Your task to perform on an android device: Clear the cart on newegg.com. Search for "razer huntsman" on newegg.com, select the first entry, and add it to the cart. Image 0: 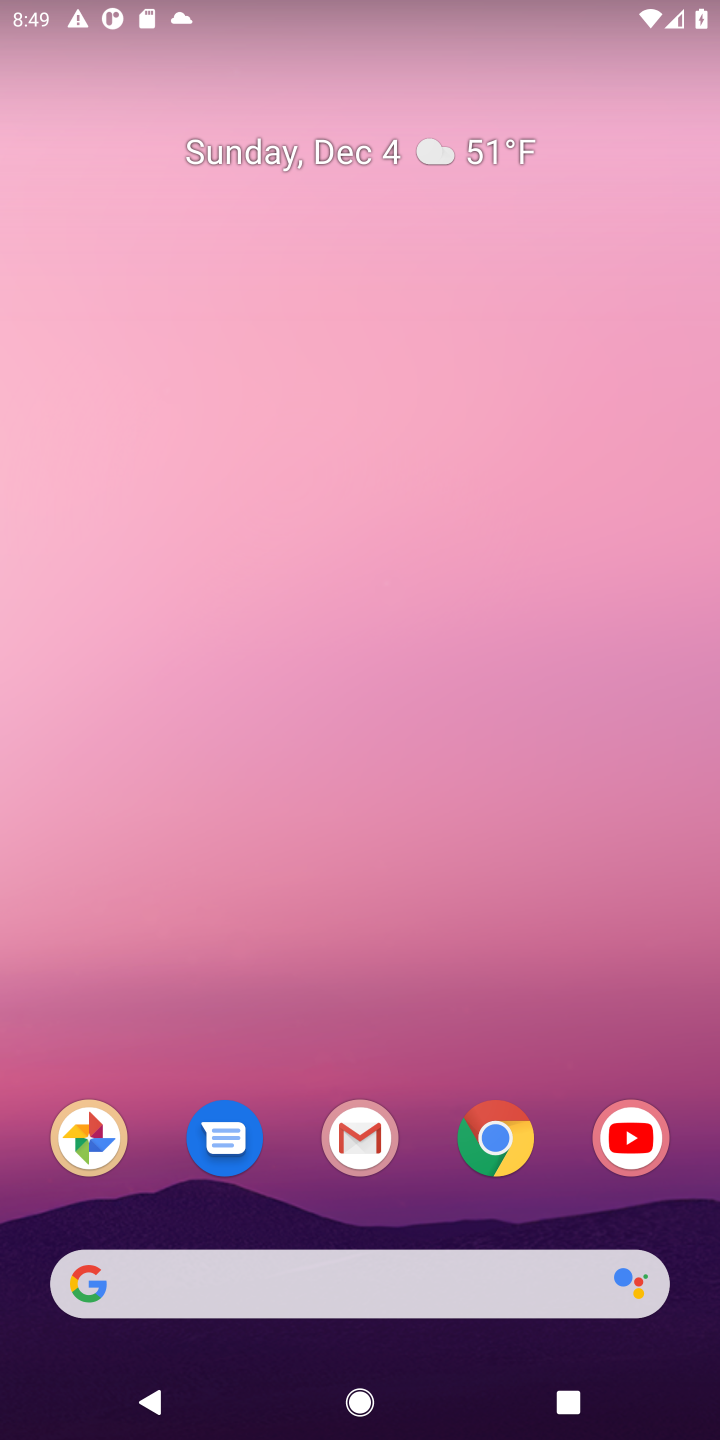
Step 0: click (486, 1121)
Your task to perform on an android device: Clear the cart on newegg.com. Search for "razer huntsman" on newegg.com, select the first entry, and add it to the cart. Image 1: 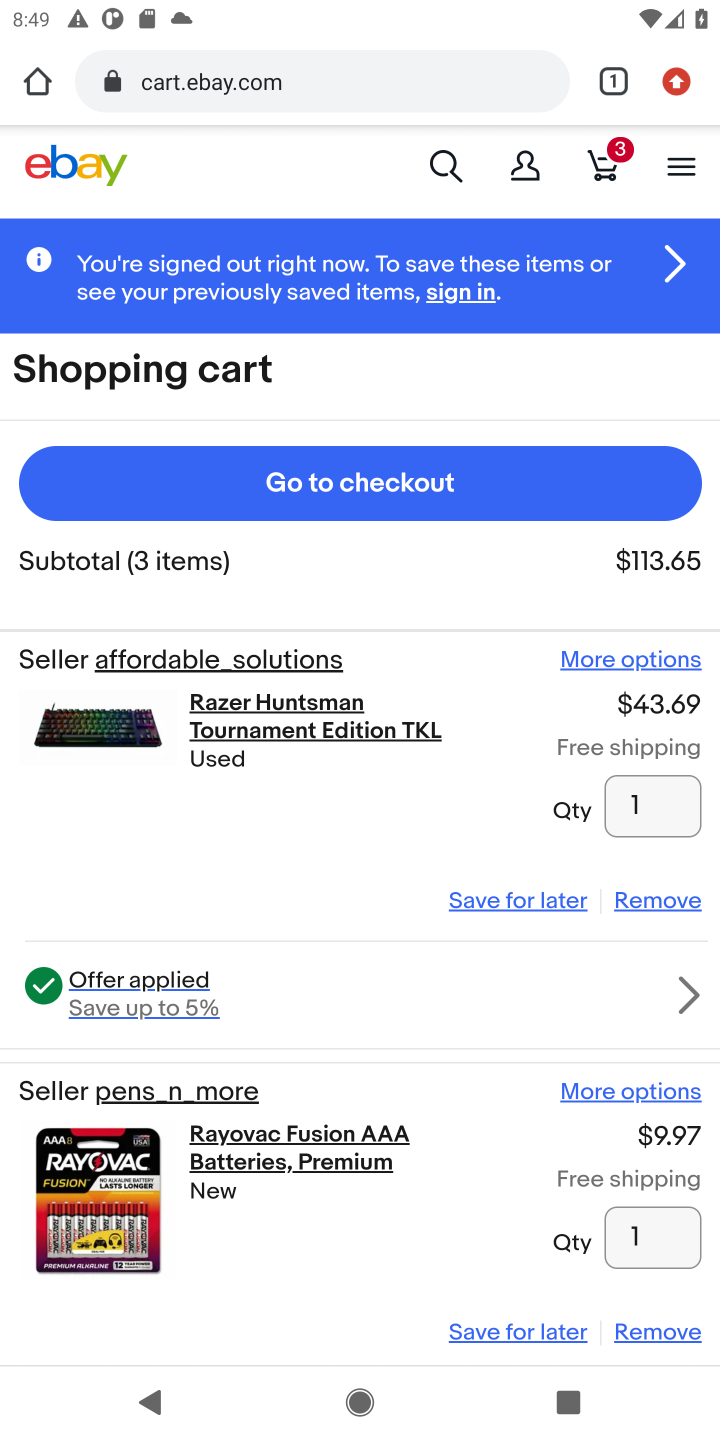
Step 1: click (373, 81)
Your task to perform on an android device: Clear the cart on newegg.com. Search for "razer huntsman" on newegg.com, select the first entry, and add it to the cart. Image 2: 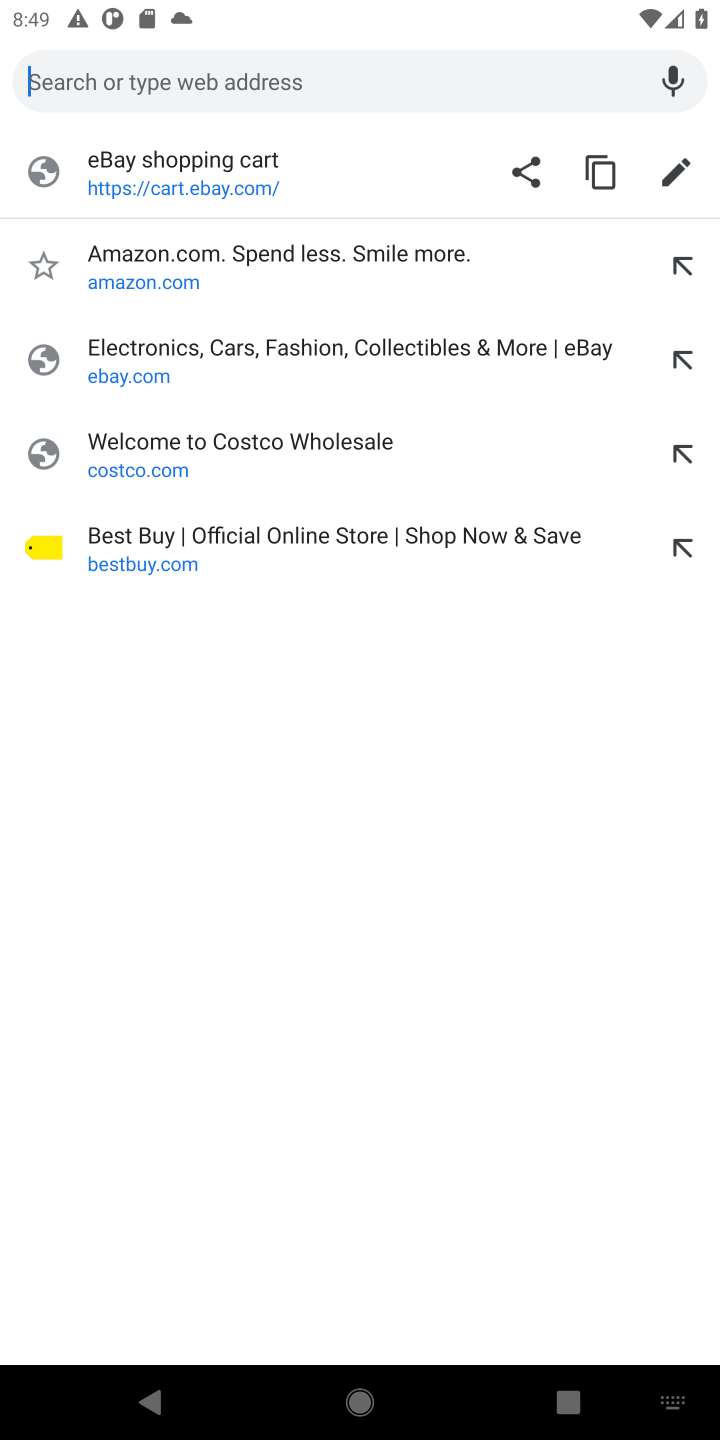
Step 2: type "newegg.com"
Your task to perform on an android device: Clear the cart on newegg.com. Search for "razer huntsman" on newegg.com, select the first entry, and add it to the cart. Image 3: 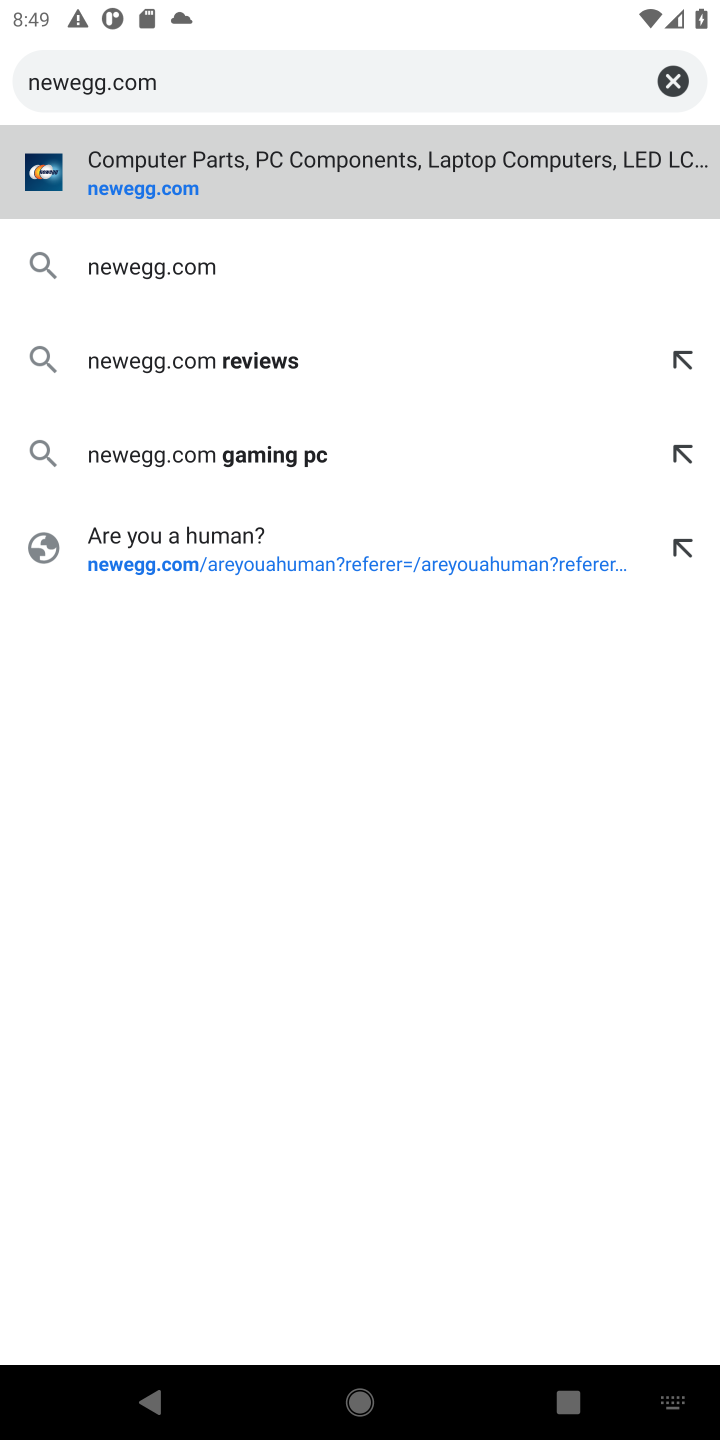
Step 3: press enter
Your task to perform on an android device: Clear the cart on newegg.com. Search for "razer huntsman" on newegg.com, select the first entry, and add it to the cart. Image 4: 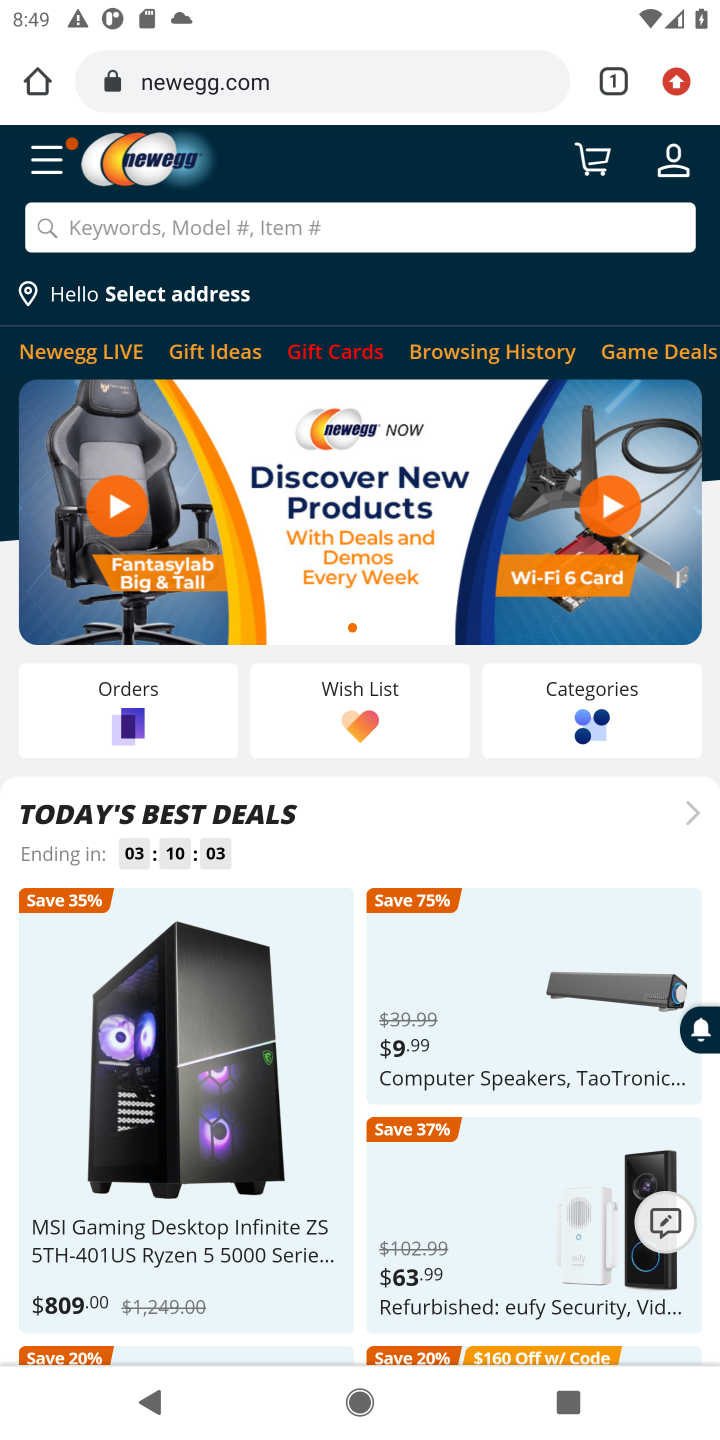
Step 4: click (590, 176)
Your task to perform on an android device: Clear the cart on newegg.com. Search for "razer huntsman" on newegg.com, select the first entry, and add it to the cart. Image 5: 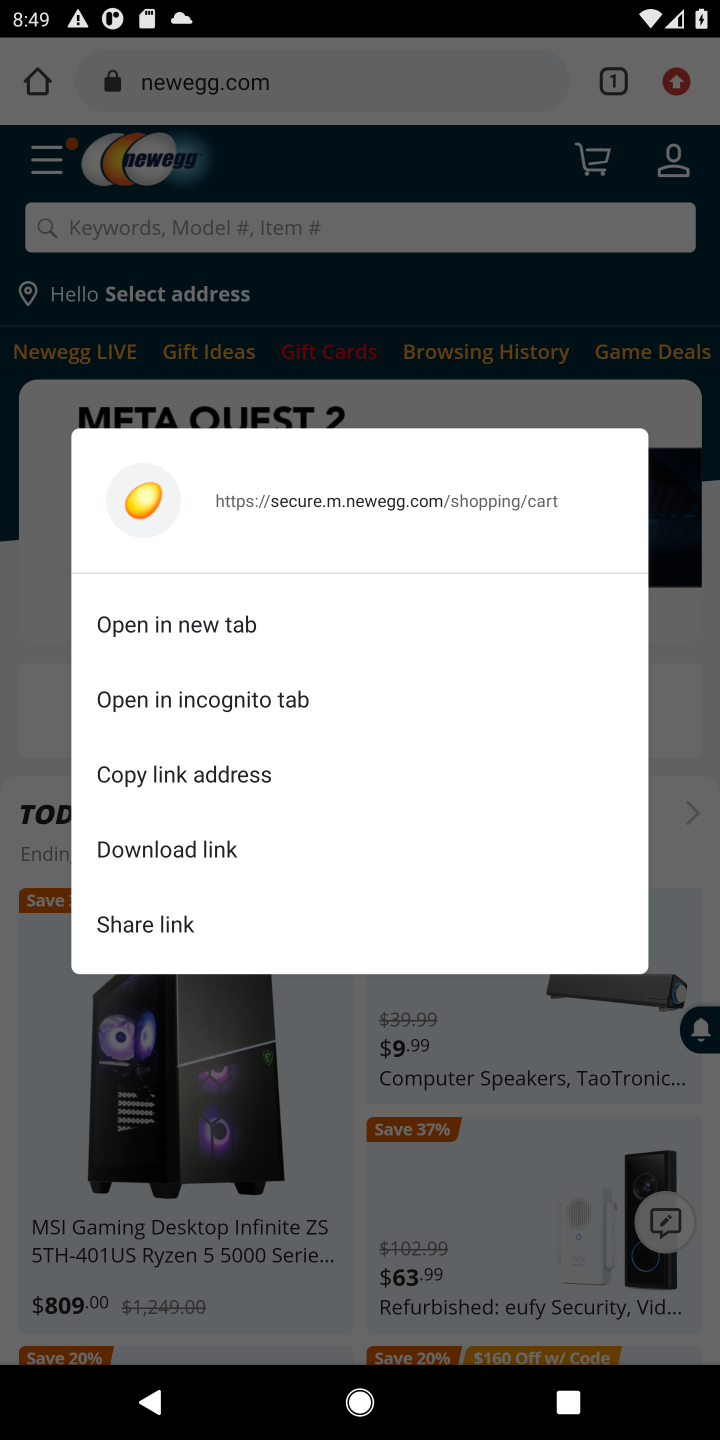
Step 5: click (590, 176)
Your task to perform on an android device: Clear the cart on newegg.com. Search for "razer huntsman" on newegg.com, select the first entry, and add it to the cart. Image 6: 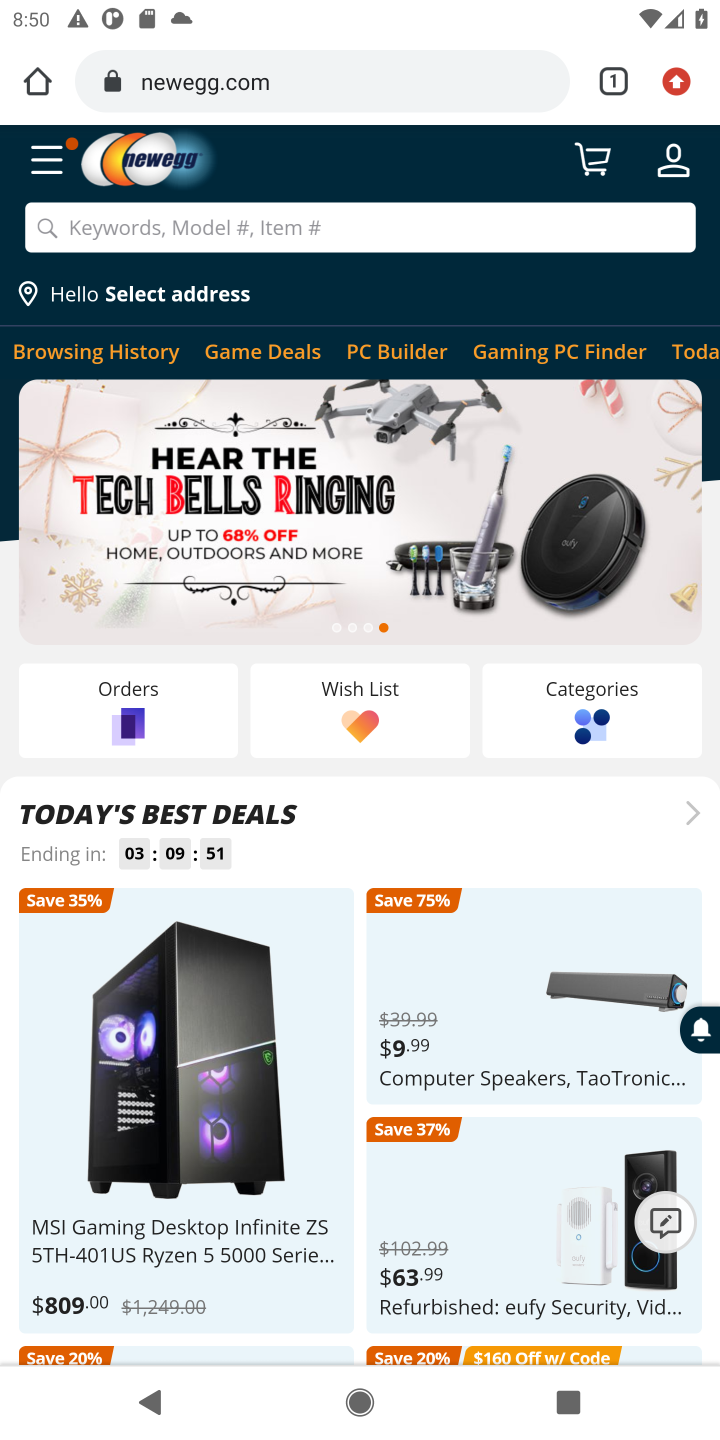
Step 6: click (547, 209)
Your task to perform on an android device: Clear the cart on newegg.com. Search for "razer huntsman" on newegg.com, select the first entry, and add it to the cart. Image 7: 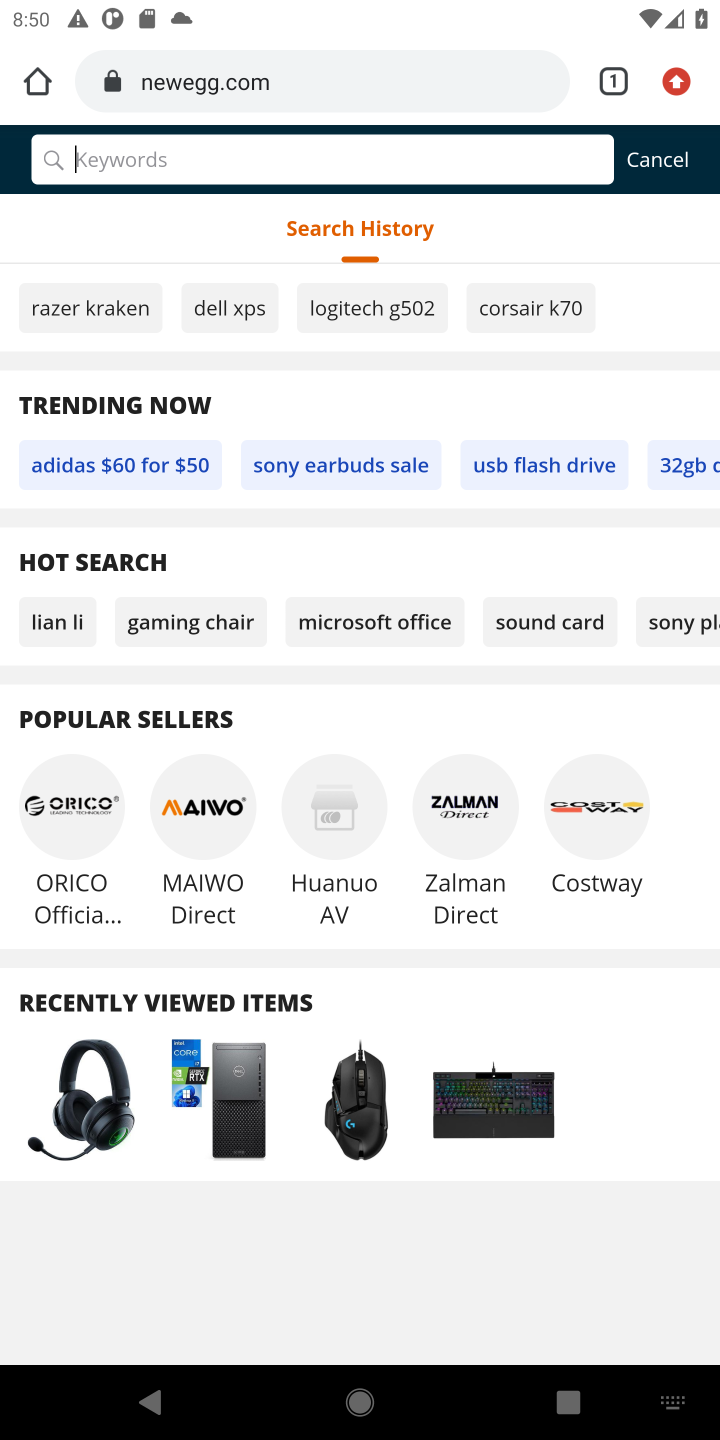
Step 7: type "razer huntsman"
Your task to perform on an android device: Clear the cart on newegg.com. Search for "razer huntsman" on newegg.com, select the first entry, and add it to the cart. Image 8: 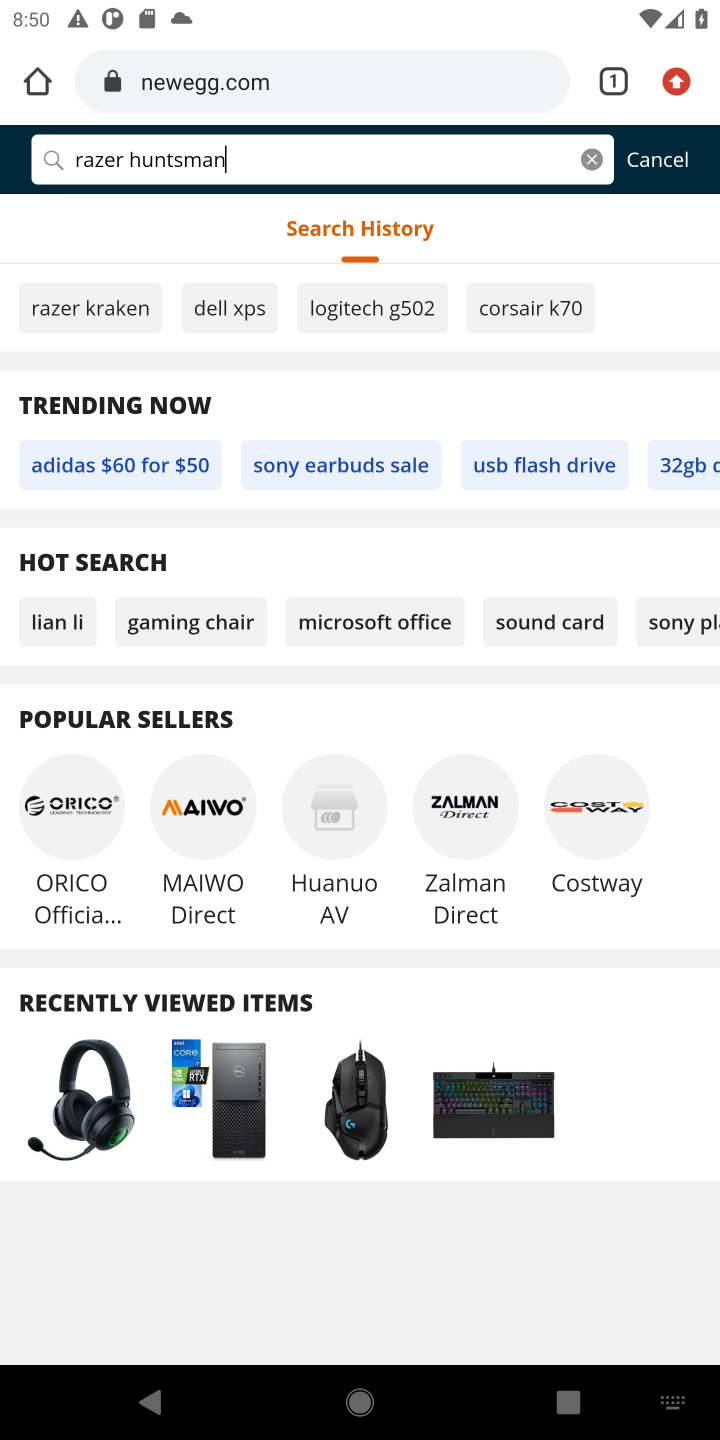
Step 8: press enter
Your task to perform on an android device: Clear the cart on newegg.com. Search for "razer huntsman" on newegg.com, select the first entry, and add it to the cart. Image 9: 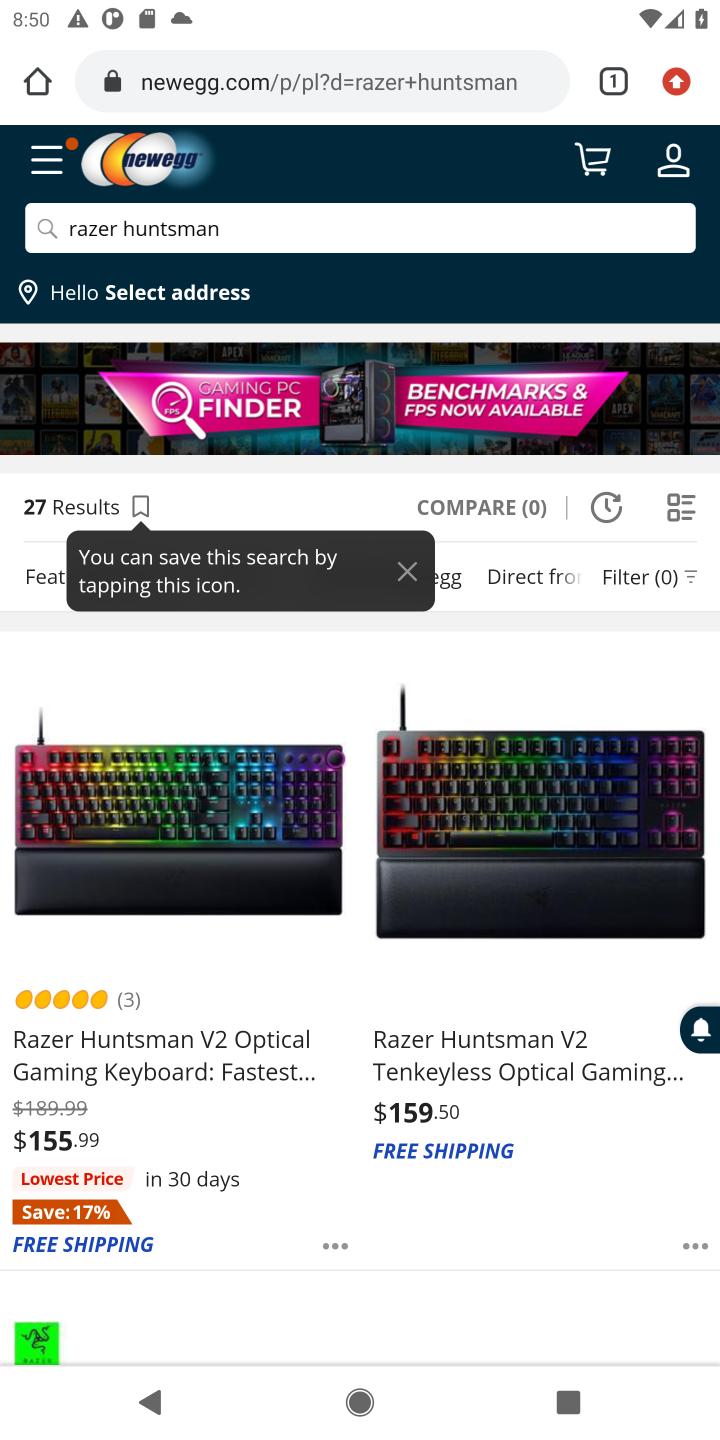
Step 9: click (235, 856)
Your task to perform on an android device: Clear the cart on newegg.com. Search for "razer huntsman" on newegg.com, select the first entry, and add it to the cart. Image 10: 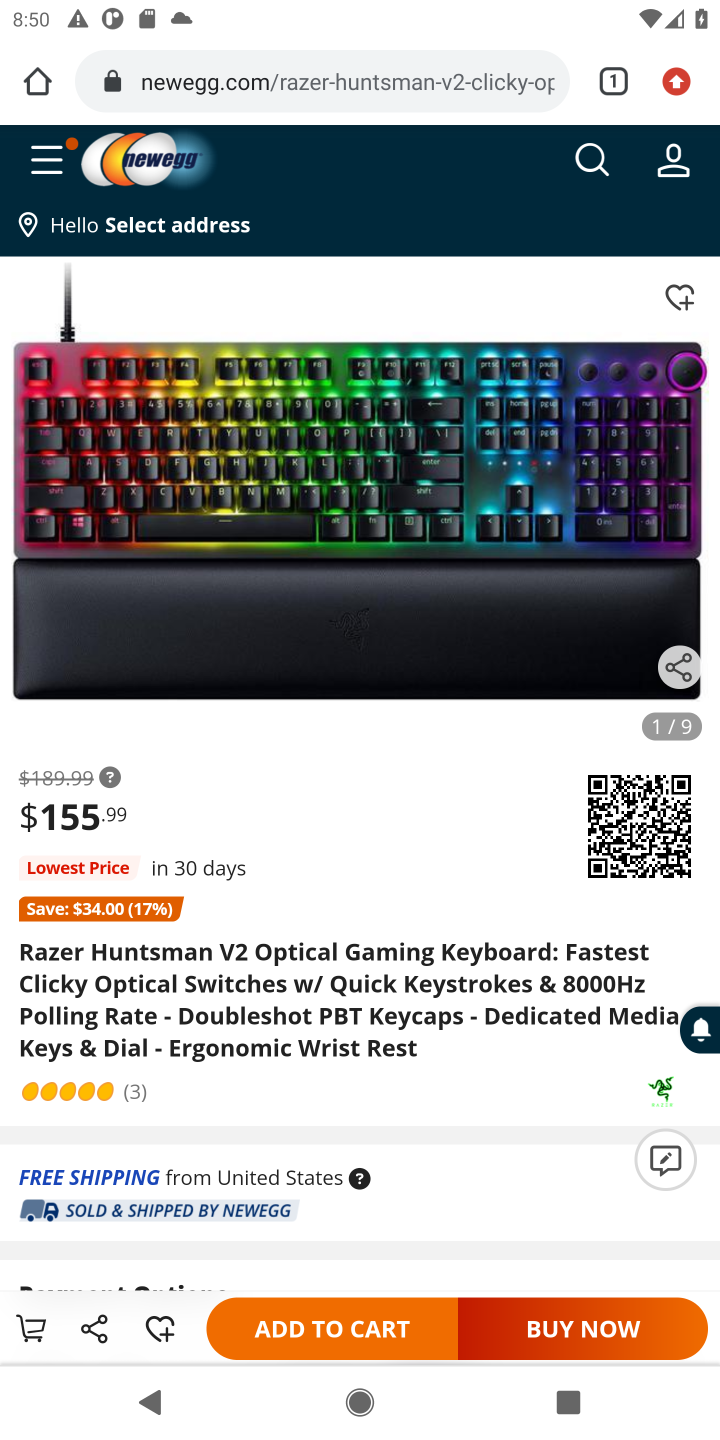
Step 10: click (310, 1332)
Your task to perform on an android device: Clear the cart on newegg.com. Search for "razer huntsman" on newegg.com, select the first entry, and add it to the cart. Image 11: 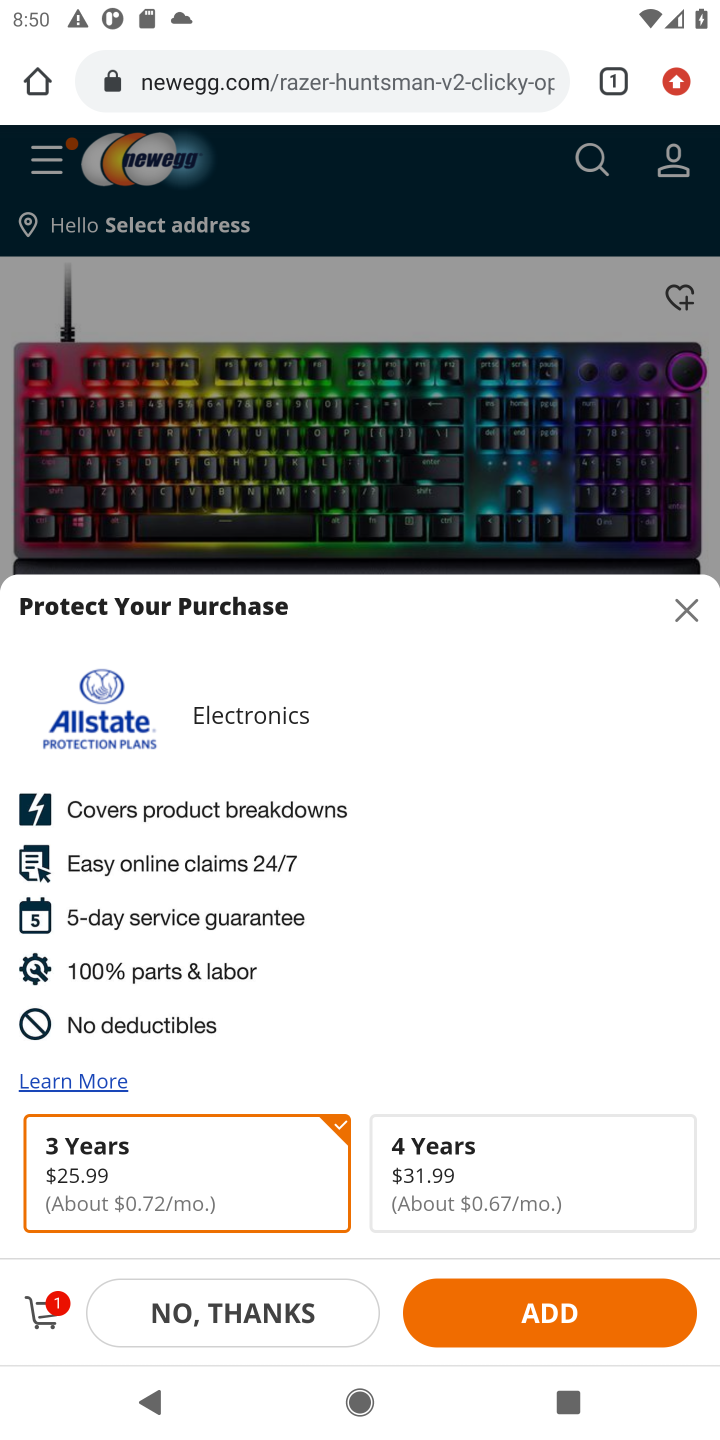
Step 11: click (44, 1310)
Your task to perform on an android device: Clear the cart on newegg.com. Search for "razer huntsman" on newegg.com, select the first entry, and add it to the cart. Image 12: 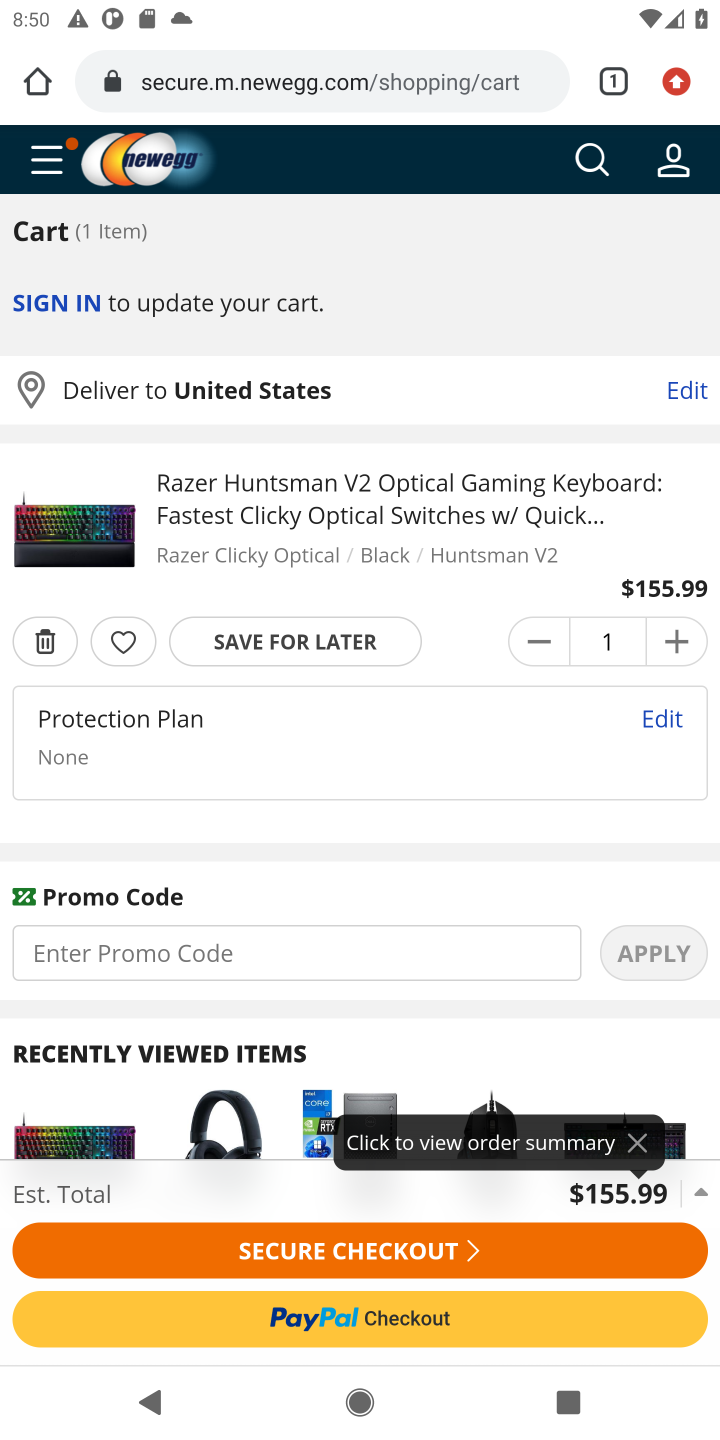
Step 12: task complete